Your task to perform on an android device: Go to location settings Image 0: 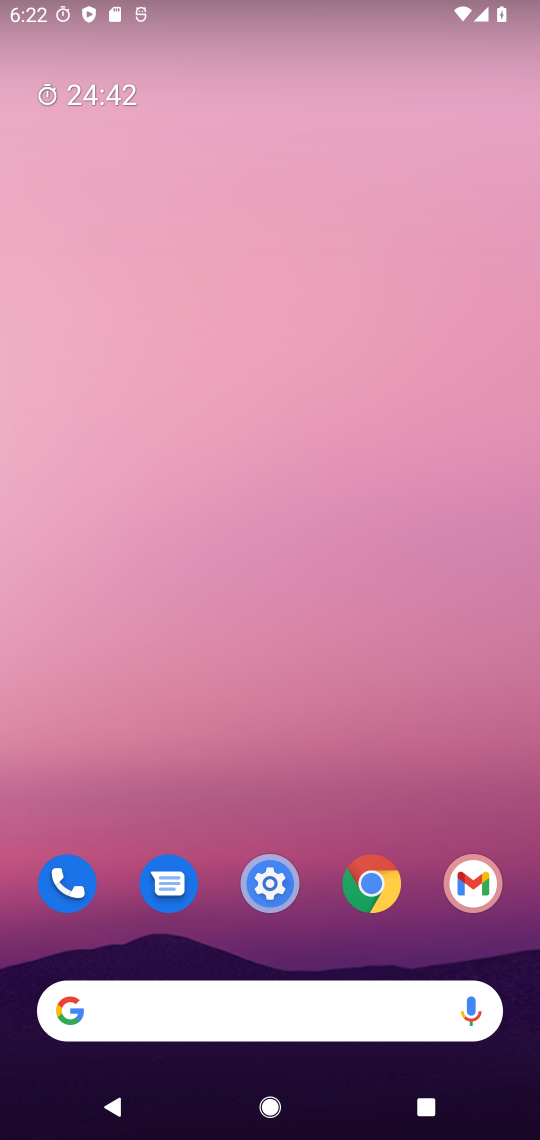
Step 0: click (285, 874)
Your task to perform on an android device: Go to location settings Image 1: 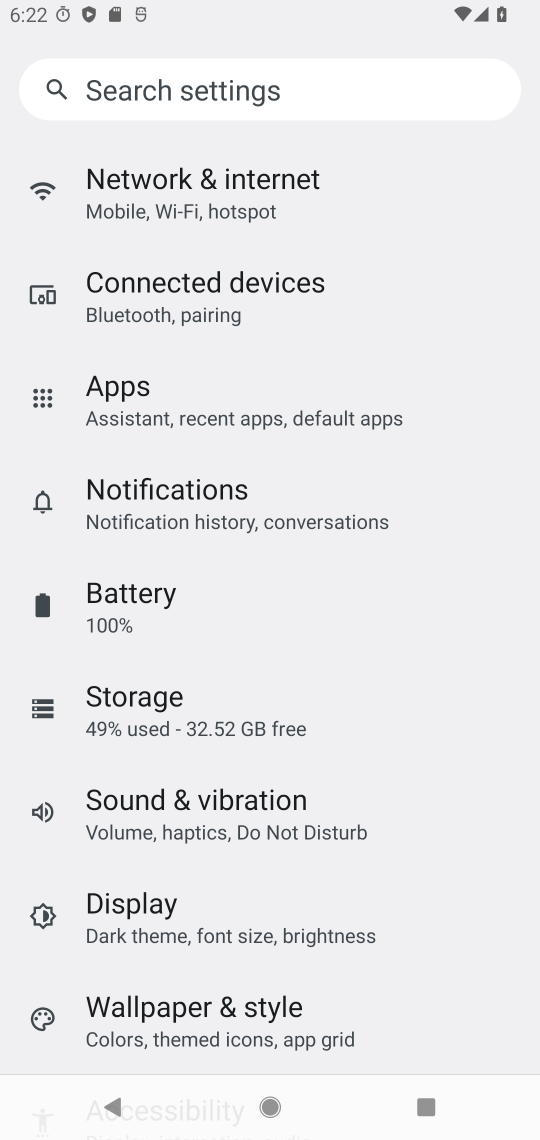
Step 1: drag from (255, 917) to (255, 382)
Your task to perform on an android device: Go to location settings Image 2: 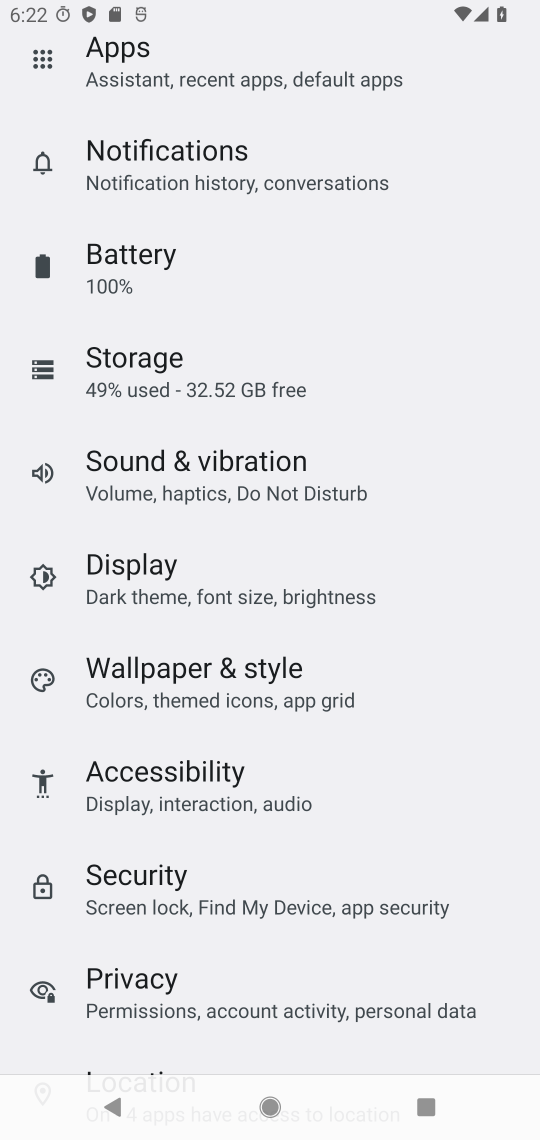
Step 2: drag from (250, 905) to (239, 271)
Your task to perform on an android device: Go to location settings Image 3: 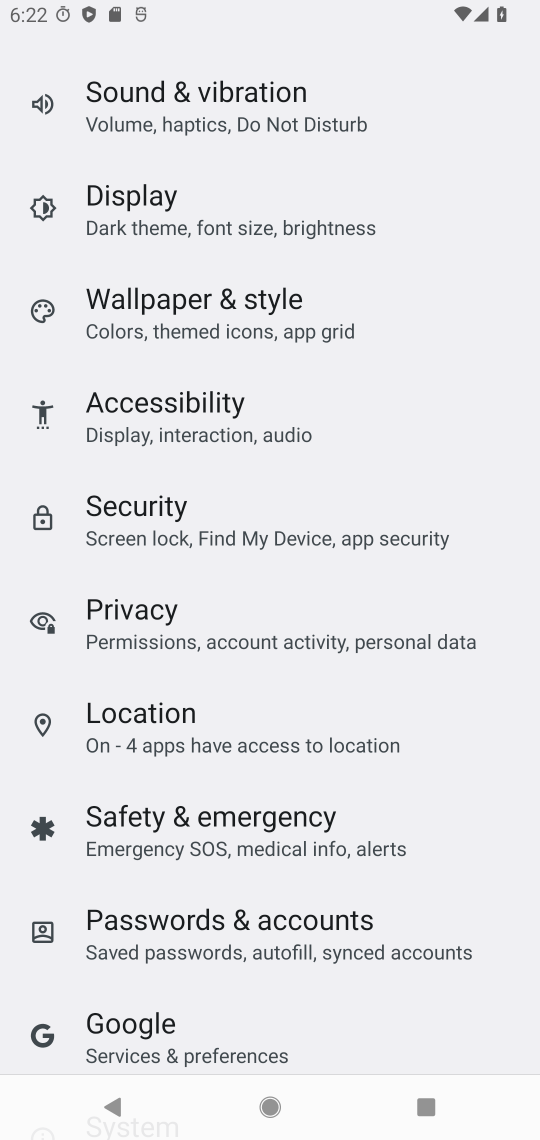
Step 3: drag from (225, 912) to (238, 419)
Your task to perform on an android device: Go to location settings Image 4: 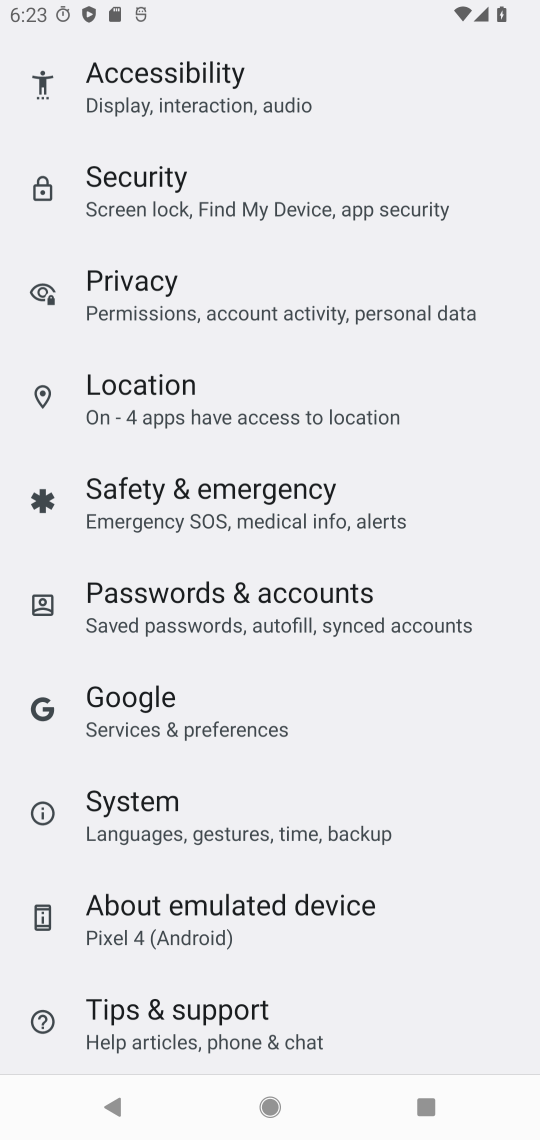
Step 4: click (174, 405)
Your task to perform on an android device: Go to location settings Image 5: 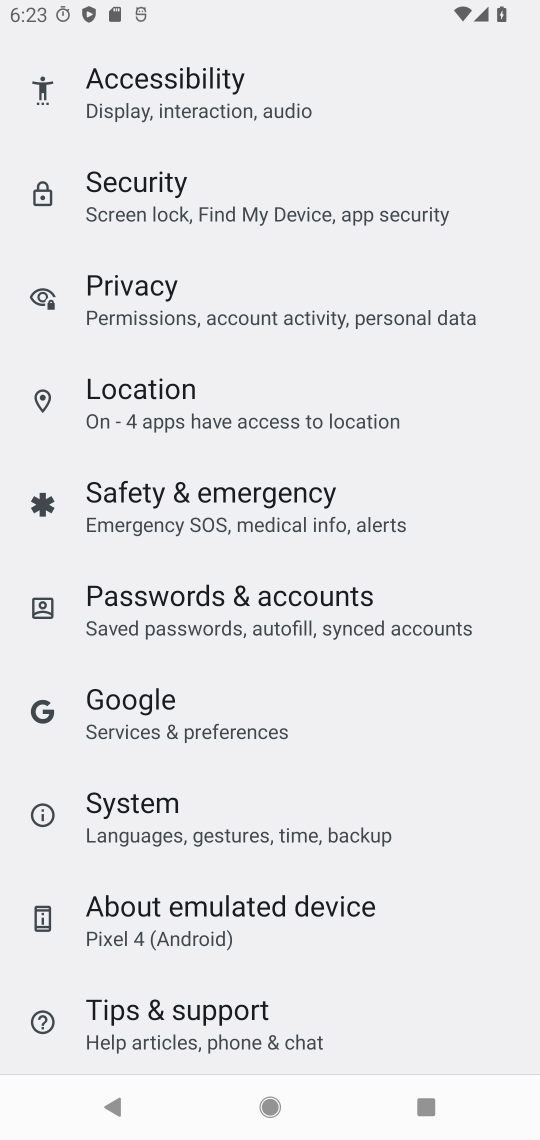
Step 5: click (166, 403)
Your task to perform on an android device: Go to location settings Image 6: 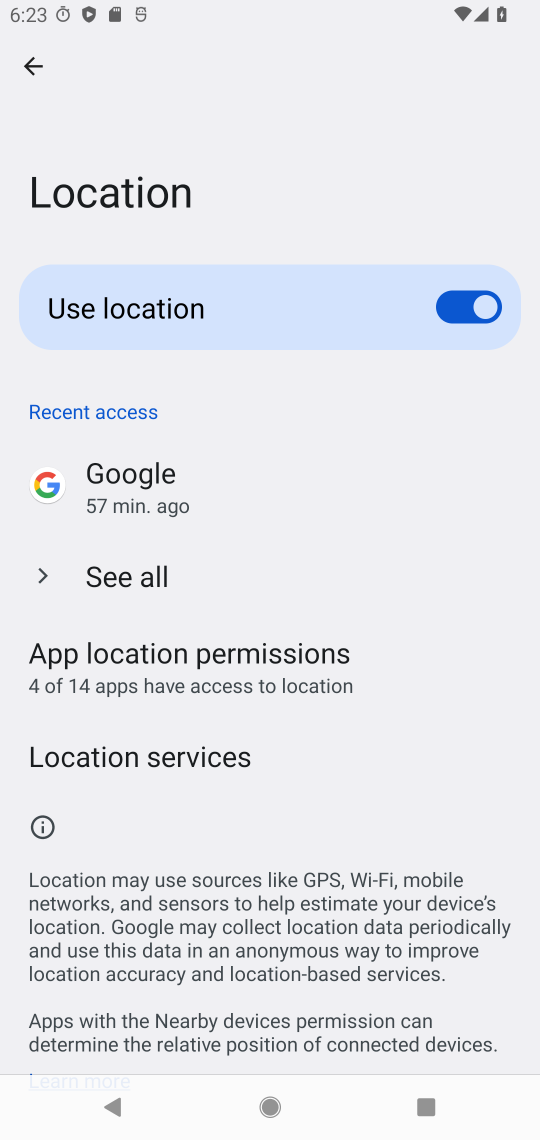
Step 6: task complete